Your task to perform on an android device: Find coffee shops on Maps Image 0: 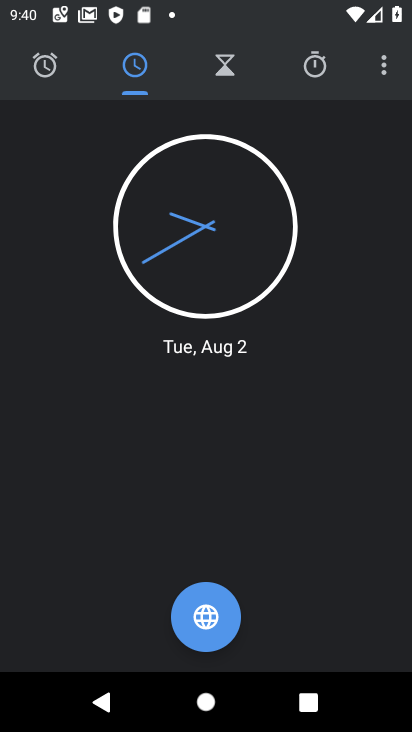
Step 0: press home button
Your task to perform on an android device: Find coffee shops on Maps Image 1: 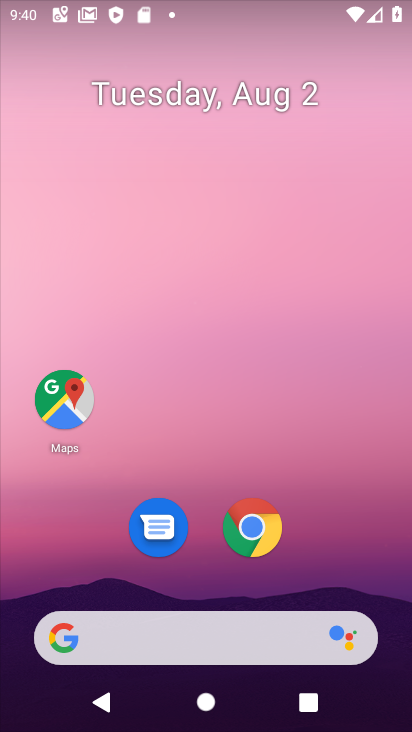
Step 1: drag from (182, 539) to (182, 375)
Your task to perform on an android device: Find coffee shops on Maps Image 2: 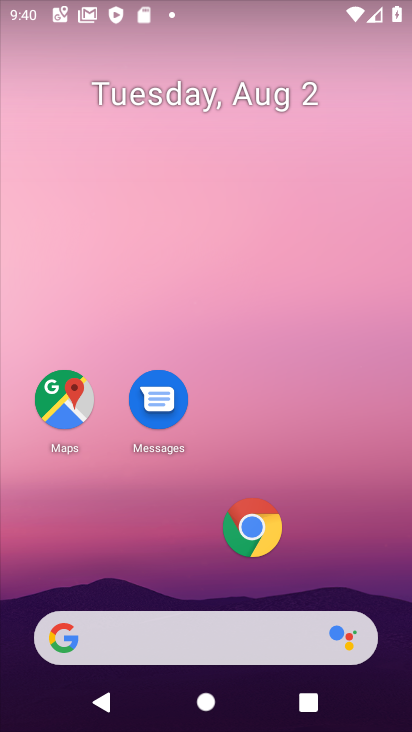
Step 2: drag from (207, 617) to (205, 189)
Your task to perform on an android device: Find coffee shops on Maps Image 3: 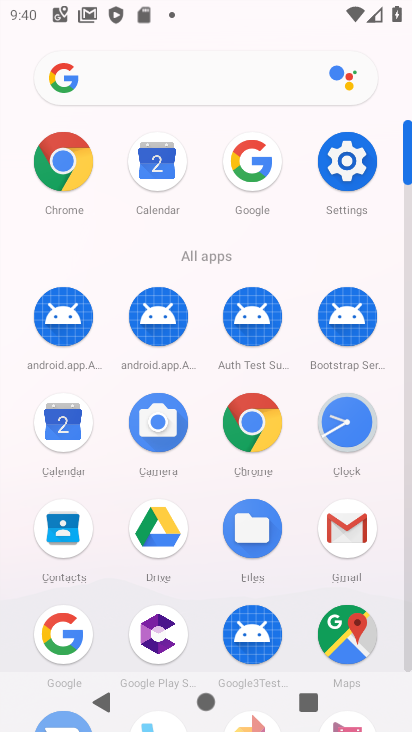
Step 3: click (344, 641)
Your task to perform on an android device: Find coffee shops on Maps Image 4: 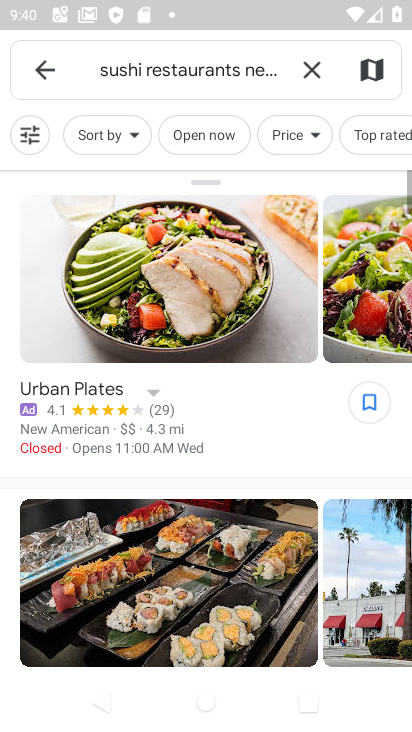
Step 4: click (309, 65)
Your task to perform on an android device: Find coffee shops on Maps Image 5: 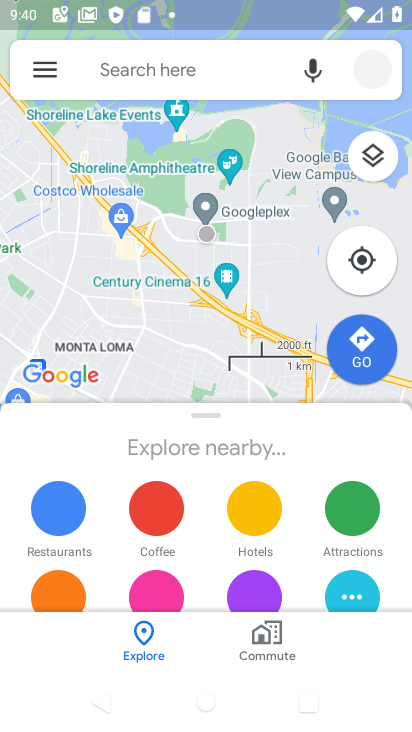
Step 5: click (215, 70)
Your task to perform on an android device: Find coffee shops on Maps Image 6: 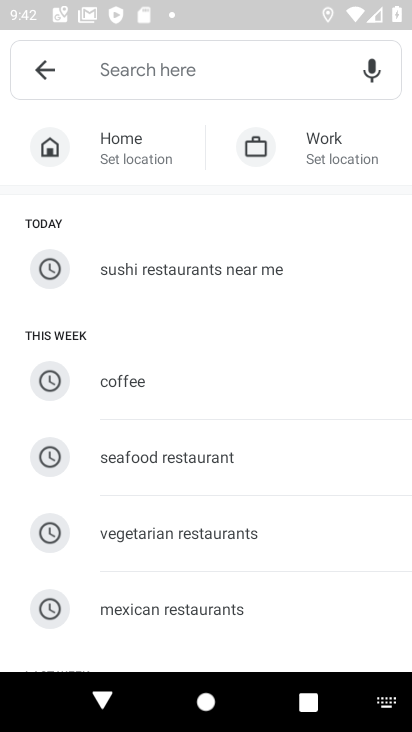
Step 6: click (207, 74)
Your task to perform on an android device: Find coffee shops on Maps Image 7: 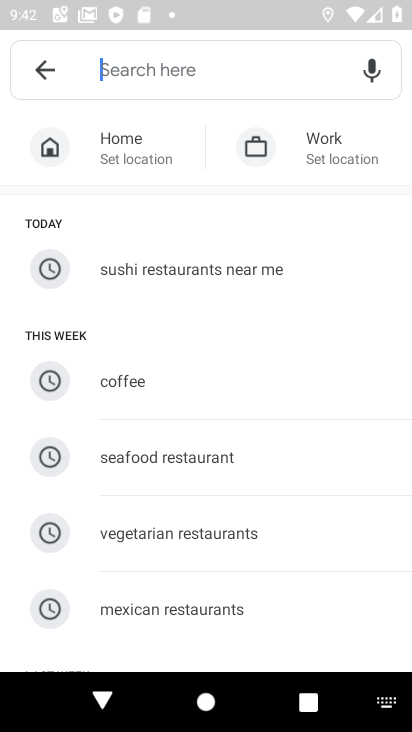
Step 7: click (119, 380)
Your task to perform on an android device: Find coffee shops on Maps Image 8: 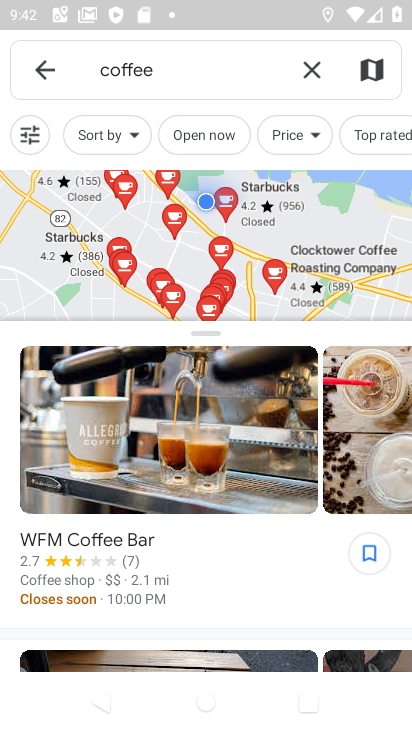
Step 8: click (188, 77)
Your task to perform on an android device: Find coffee shops on Maps Image 9: 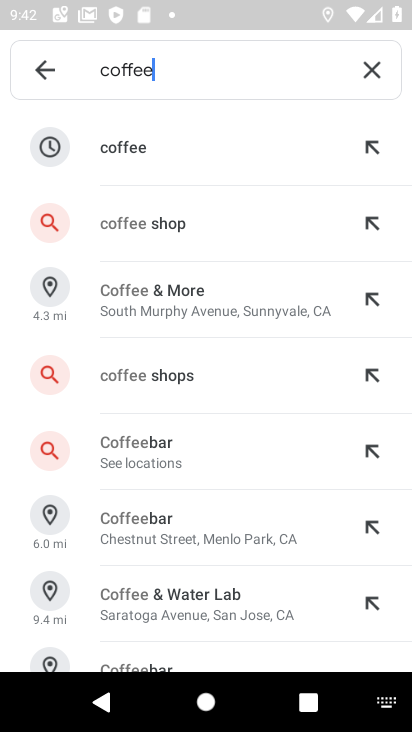
Step 9: click (177, 226)
Your task to perform on an android device: Find coffee shops on Maps Image 10: 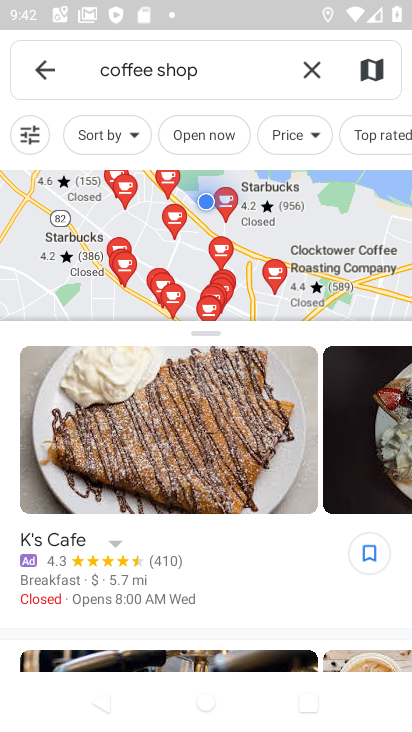
Step 10: task complete